Your task to perform on an android device: Open Google Chrome and open the bookmarks view Image 0: 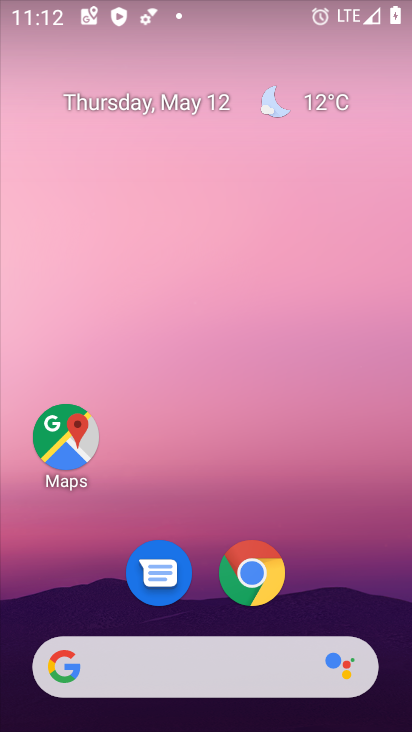
Step 0: click (275, 568)
Your task to perform on an android device: Open Google Chrome and open the bookmarks view Image 1: 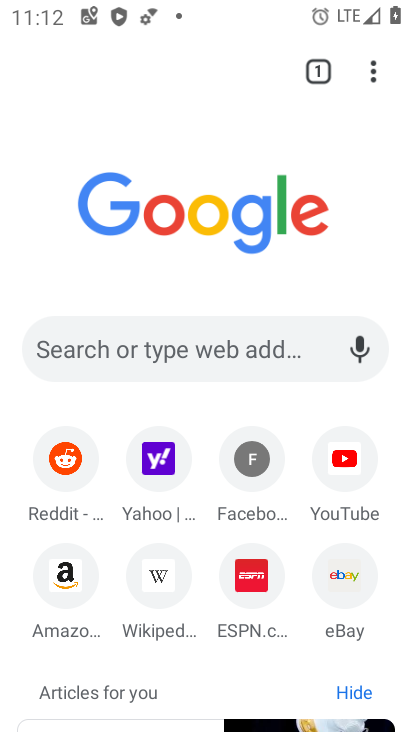
Step 1: click (371, 75)
Your task to perform on an android device: Open Google Chrome and open the bookmarks view Image 2: 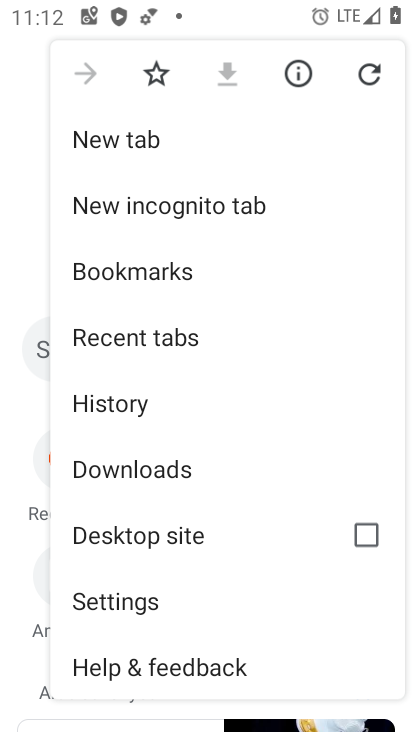
Step 2: click (110, 273)
Your task to perform on an android device: Open Google Chrome and open the bookmarks view Image 3: 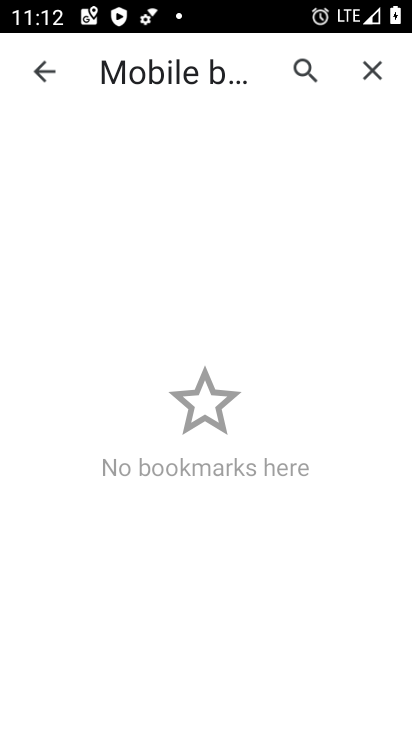
Step 3: task complete